Your task to perform on an android device: Go to Yahoo.com Image 0: 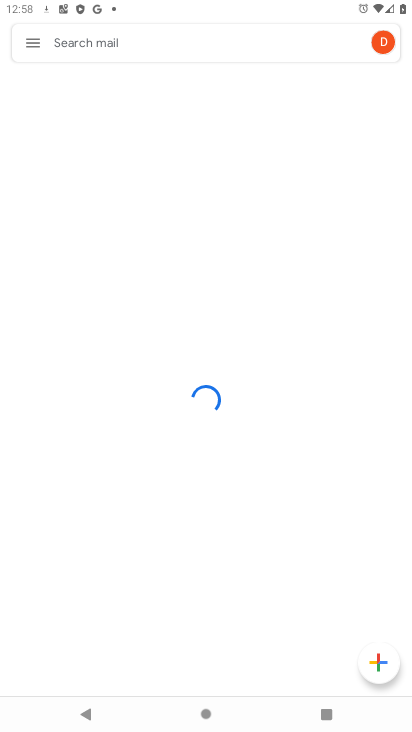
Step 0: press home button
Your task to perform on an android device: Go to Yahoo.com Image 1: 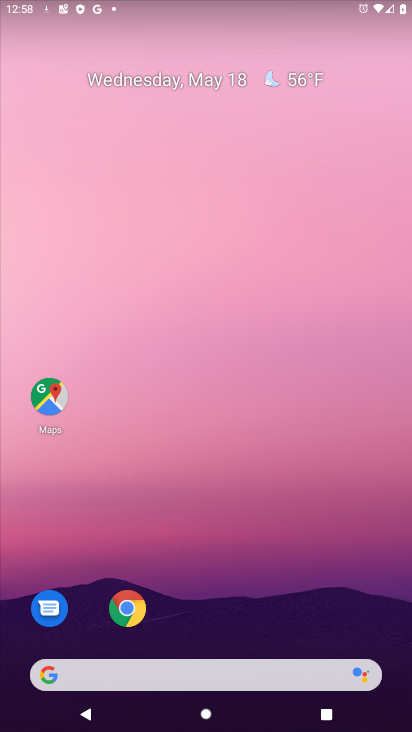
Step 1: drag from (293, 700) to (320, 169)
Your task to perform on an android device: Go to Yahoo.com Image 2: 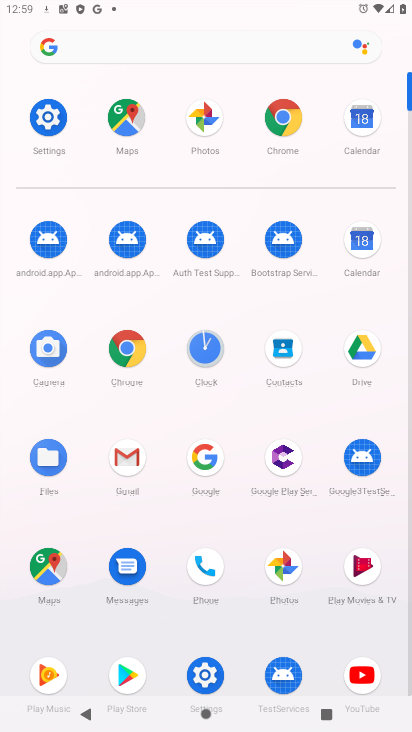
Step 2: click (288, 128)
Your task to perform on an android device: Go to Yahoo.com Image 3: 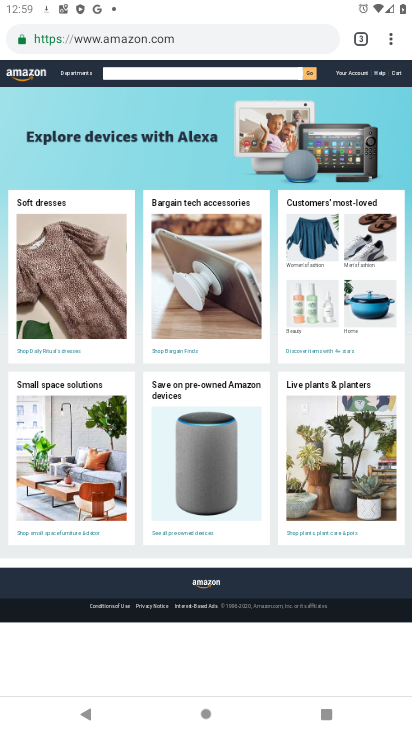
Step 3: click (388, 48)
Your task to perform on an android device: Go to Yahoo.com Image 4: 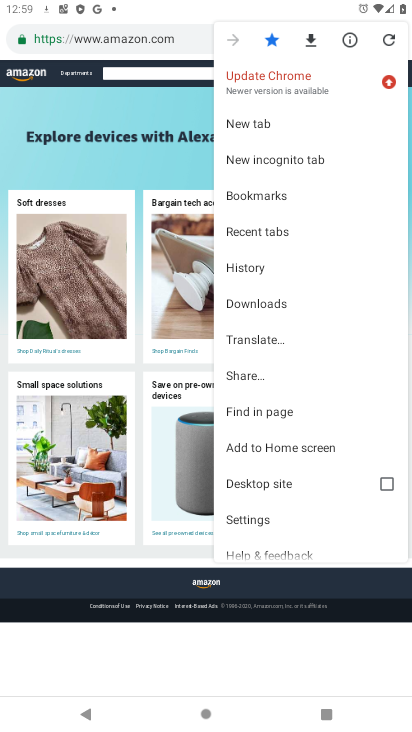
Step 4: click (279, 116)
Your task to perform on an android device: Go to Yahoo.com Image 5: 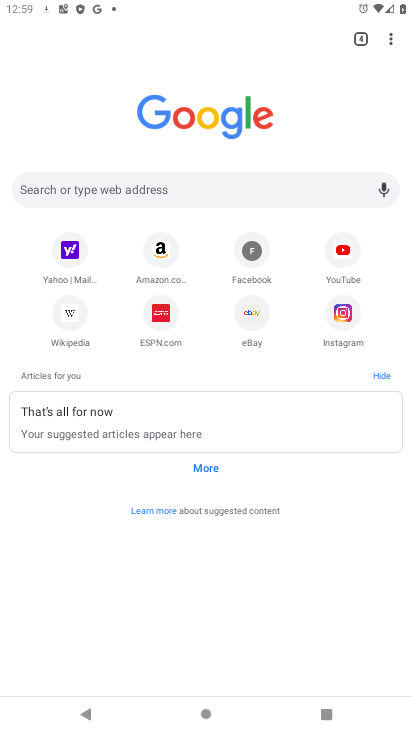
Step 5: click (72, 254)
Your task to perform on an android device: Go to Yahoo.com Image 6: 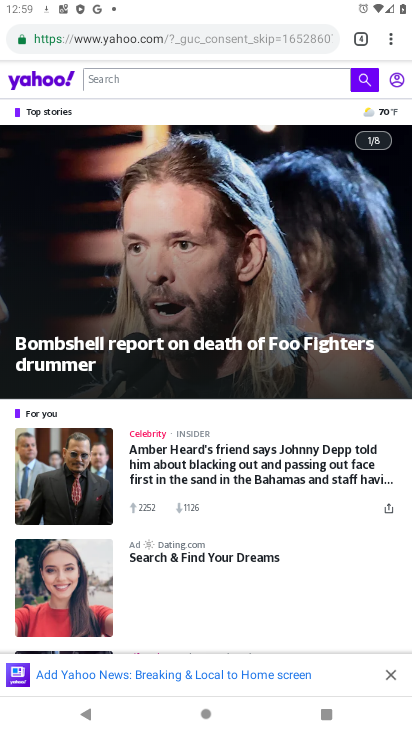
Step 6: task complete